Your task to perform on an android device: turn off location Image 0: 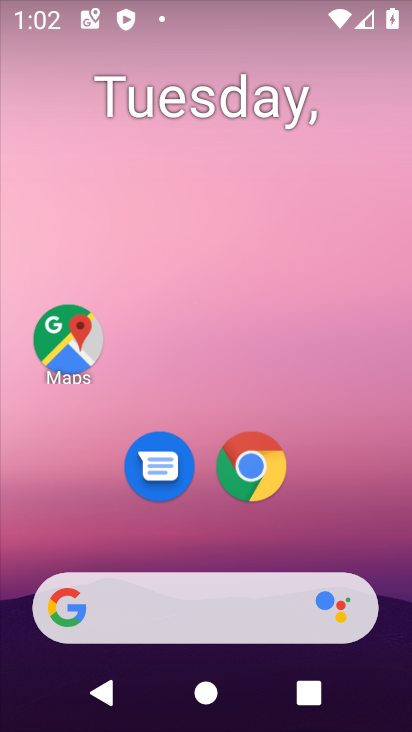
Step 0: drag from (330, 507) to (285, 37)
Your task to perform on an android device: turn off location Image 1: 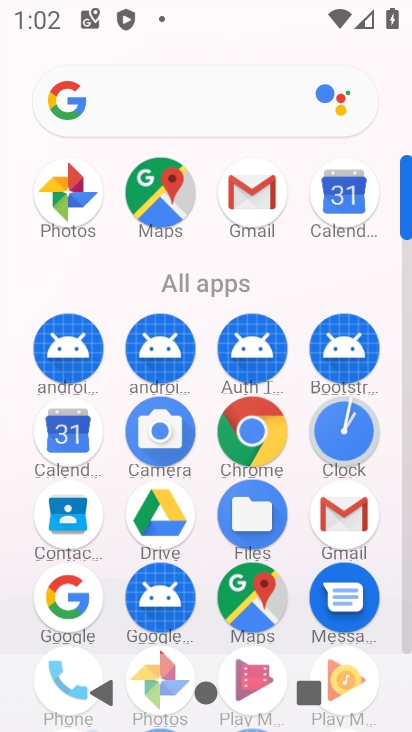
Step 1: click (404, 640)
Your task to perform on an android device: turn off location Image 2: 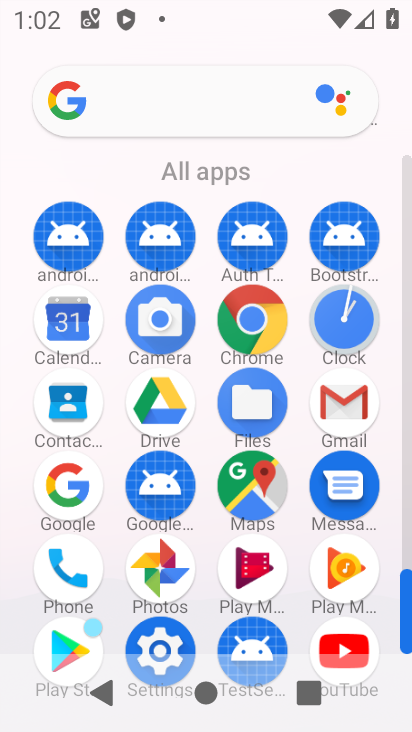
Step 2: click (147, 636)
Your task to perform on an android device: turn off location Image 3: 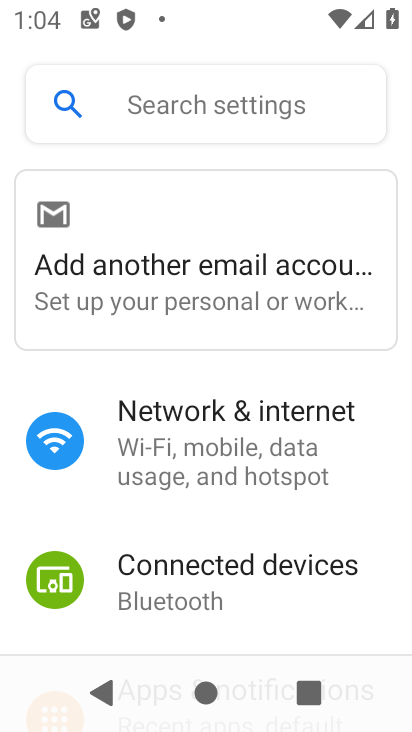
Step 3: drag from (324, 617) to (274, 237)
Your task to perform on an android device: turn off location Image 4: 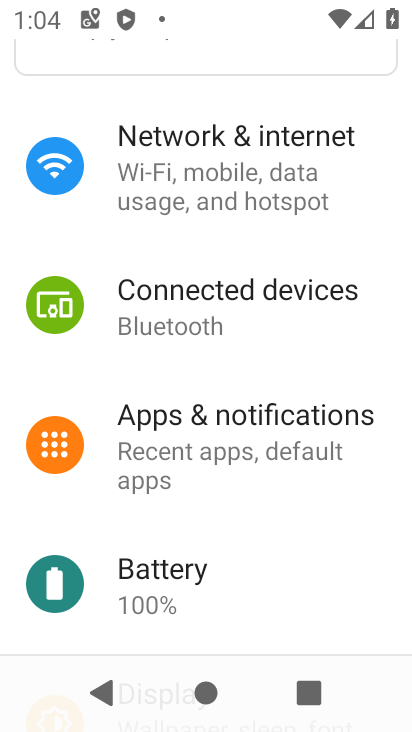
Step 4: drag from (290, 638) to (208, 178)
Your task to perform on an android device: turn off location Image 5: 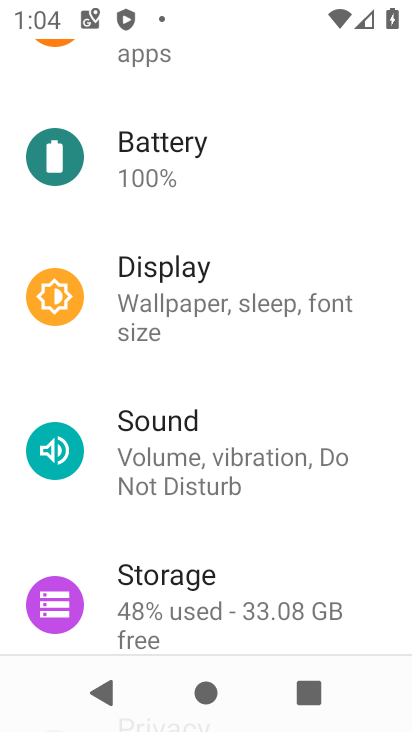
Step 5: drag from (241, 492) to (191, 98)
Your task to perform on an android device: turn off location Image 6: 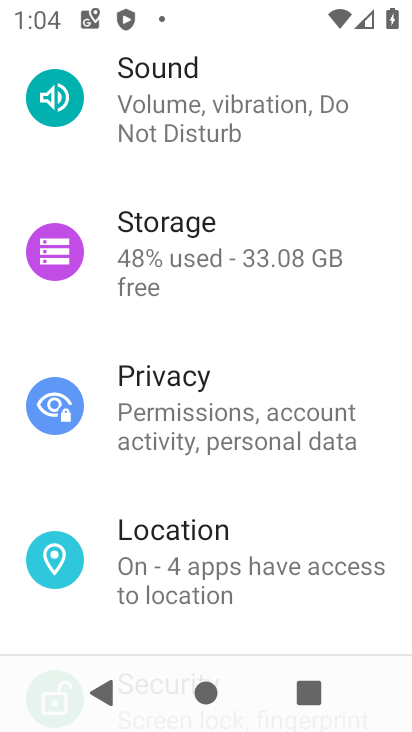
Step 6: drag from (241, 477) to (174, 0)
Your task to perform on an android device: turn off location Image 7: 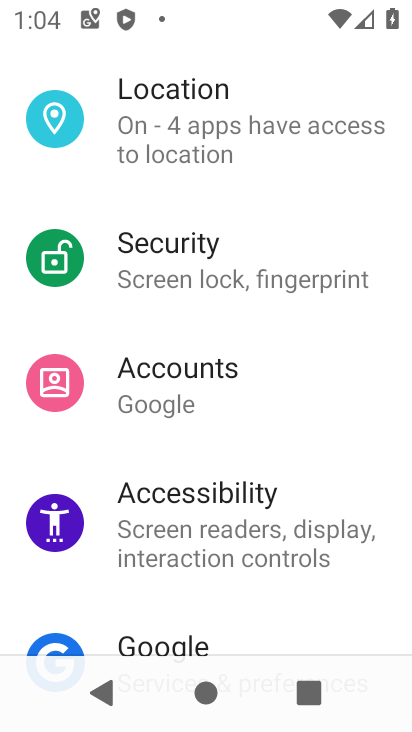
Step 7: click (220, 553)
Your task to perform on an android device: turn off location Image 8: 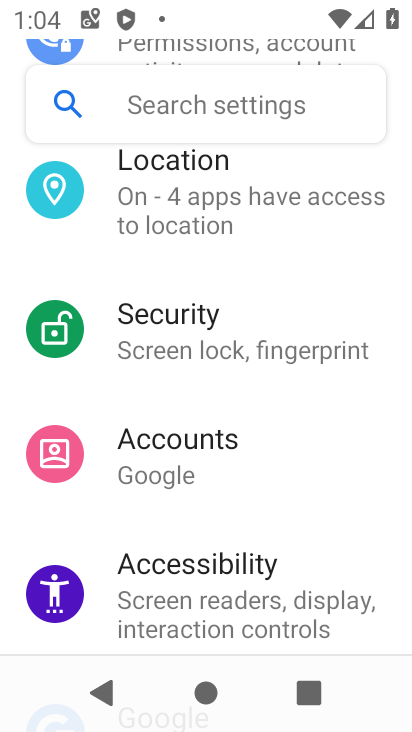
Step 8: click (193, 223)
Your task to perform on an android device: turn off location Image 9: 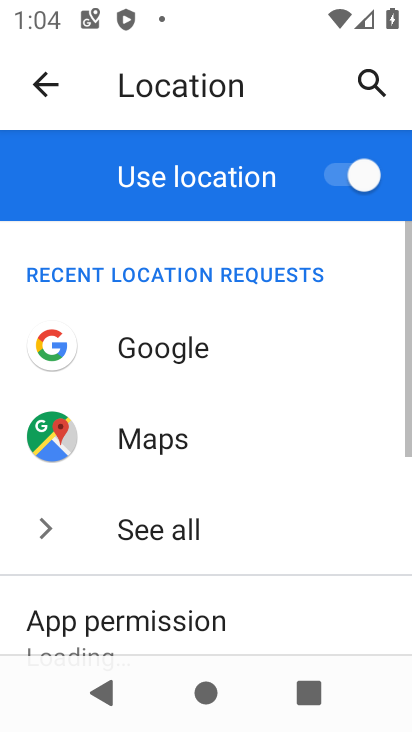
Step 9: click (185, 197)
Your task to perform on an android device: turn off location Image 10: 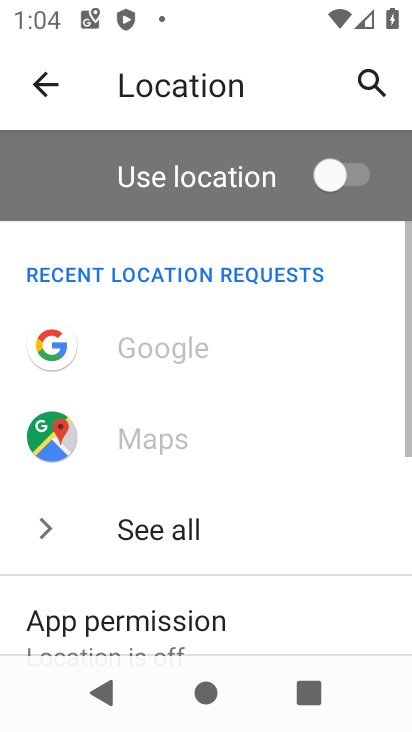
Step 10: task complete